Your task to perform on an android device: open chrome privacy settings Image 0: 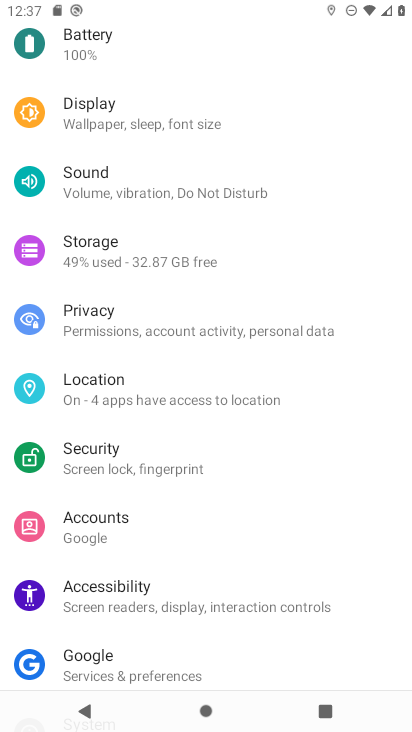
Step 0: press home button
Your task to perform on an android device: open chrome privacy settings Image 1: 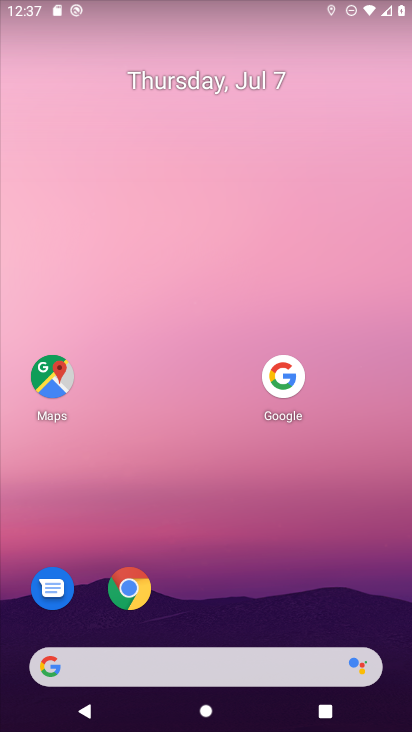
Step 1: click (136, 587)
Your task to perform on an android device: open chrome privacy settings Image 2: 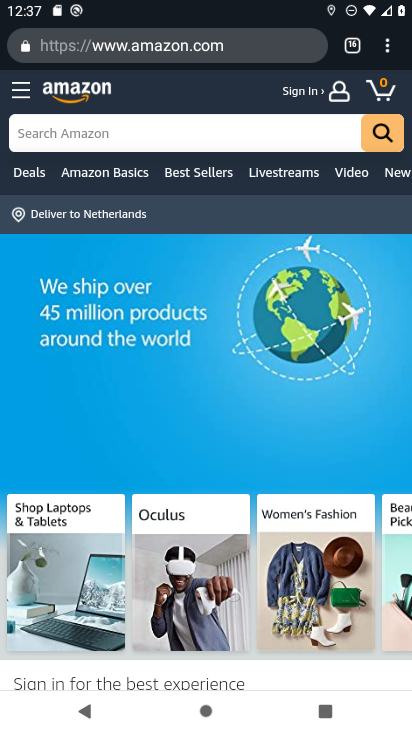
Step 2: drag from (384, 50) to (247, 547)
Your task to perform on an android device: open chrome privacy settings Image 3: 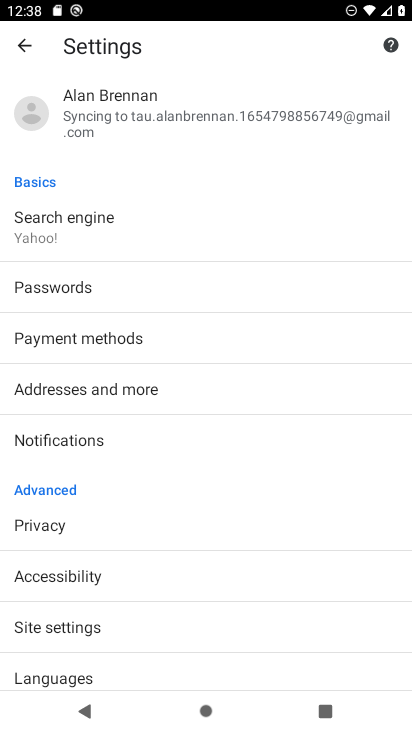
Step 3: click (56, 525)
Your task to perform on an android device: open chrome privacy settings Image 4: 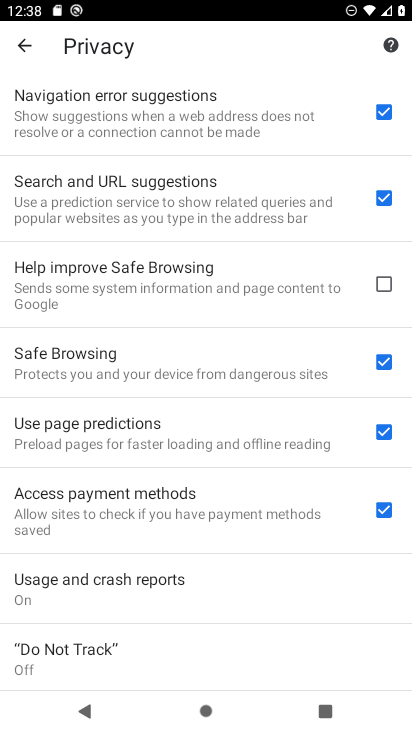
Step 4: task complete